Your task to perform on an android device: see creations saved in the google photos Image 0: 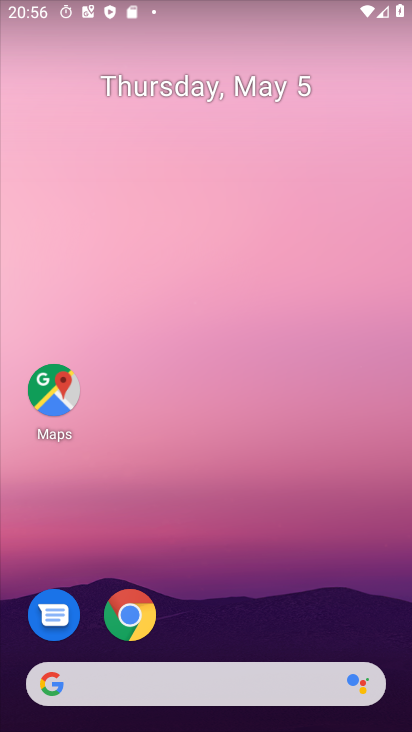
Step 0: drag from (221, 631) to (267, 6)
Your task to perform on an android device: see creations saved in the google photos Image 1: 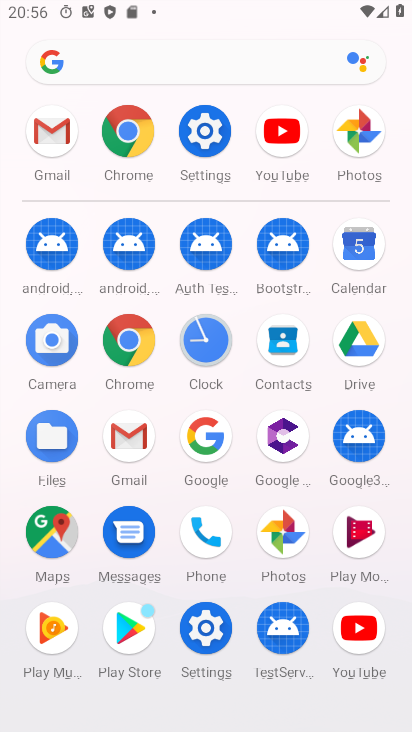
Step 1: click (282, 552)
Your task to perform on an android device: see creations saved in the google photos Image 2: 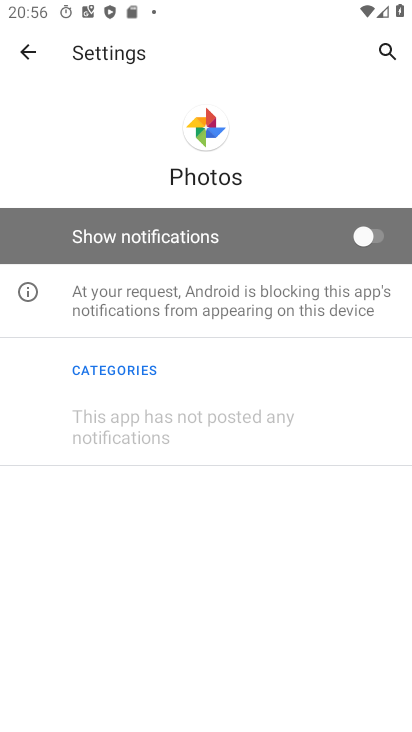
Step 2: click (37, 58)
Your task to perform on an android device: see creations saved in the google photos Image 3: 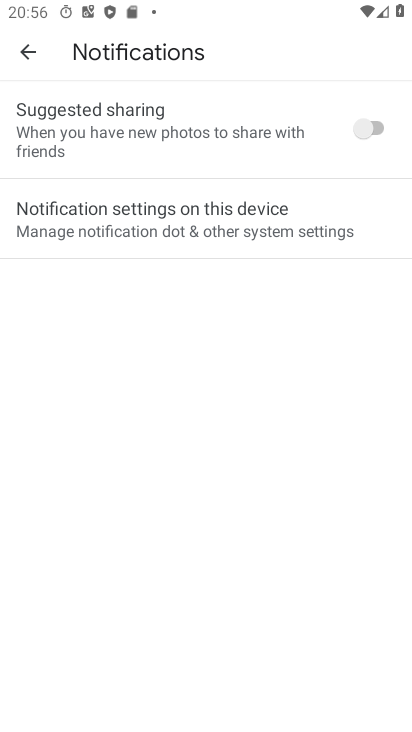
Step 3: click (31, 46)
Your task to perform on an android device: see creations saved in the google photos Image 4: 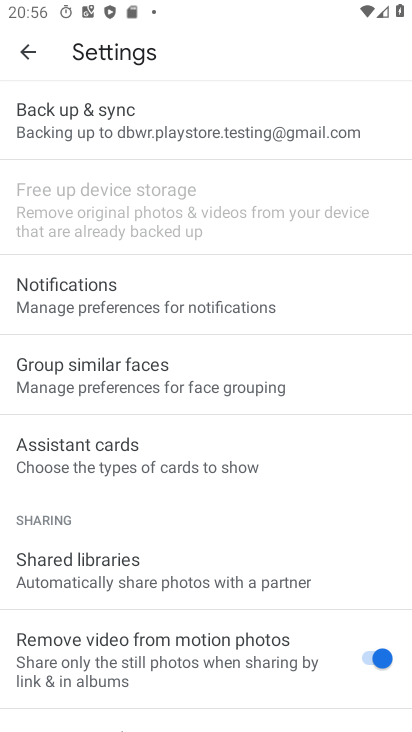
Step 4: click (40, 52)
Your task to perform on an android device: see creations saved in the google photos Image 5: 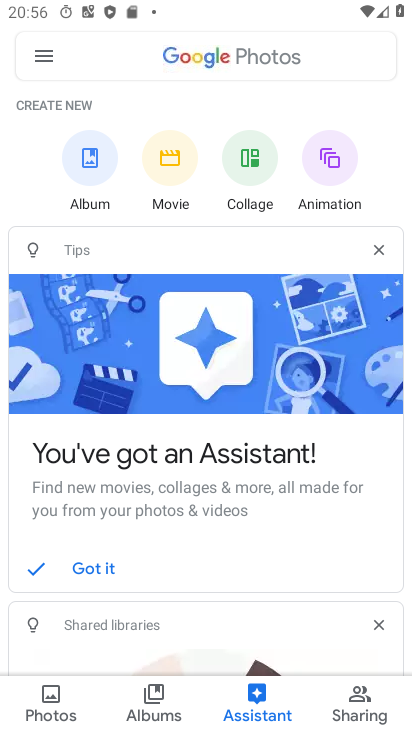
Step 5: click (202, 51)
Your task to perform on an android device: see creations saved in the google photos Image 6: 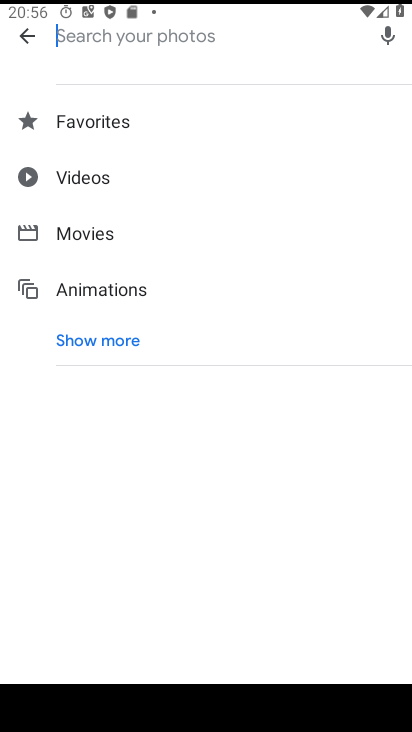
Step 6: type "creations"
Your task to perform on an android device: see creations saved in the google photos Image 7: 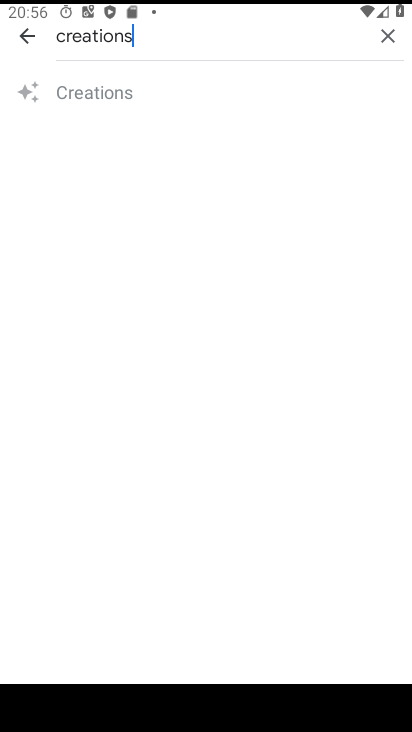
Step 7: click (116, 96)
Your task to perform on an android device: see creations saved in the google photos Image 8: 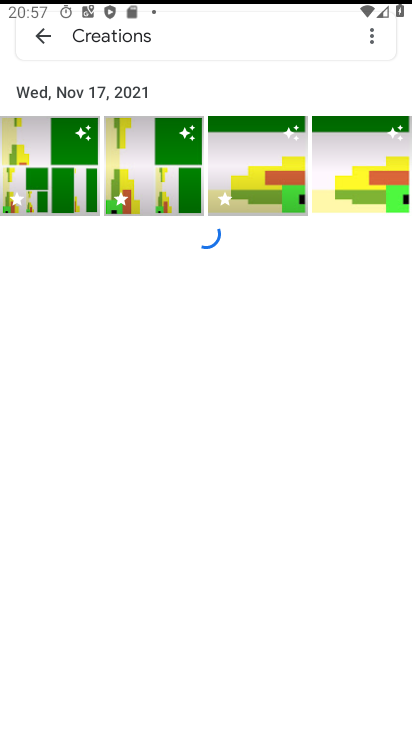
Step 8: click (73, 181)
Your task to perform on an android device: see creations saved in the google photos Image 9: 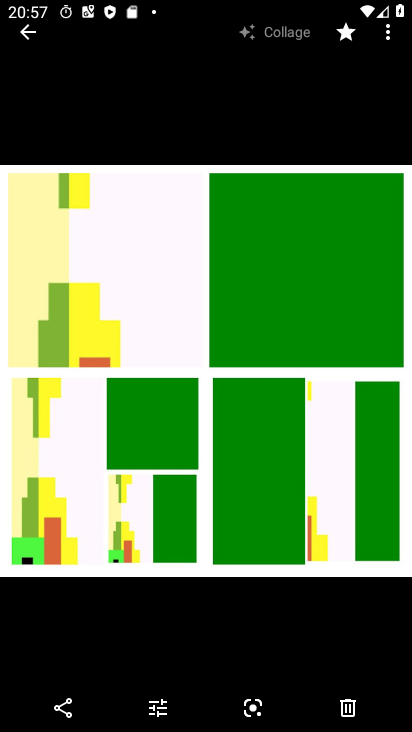
Step 9: task complete